Your task to perform on an android device: Turn on the flashlight Image 0: 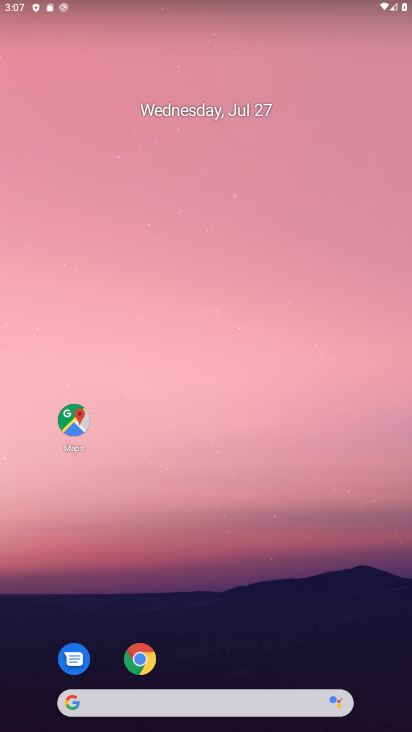
Step 0: drag from (170, 2) to (216, 437)
Your task to perform on an android device: Turn on the flashlight Image 1: 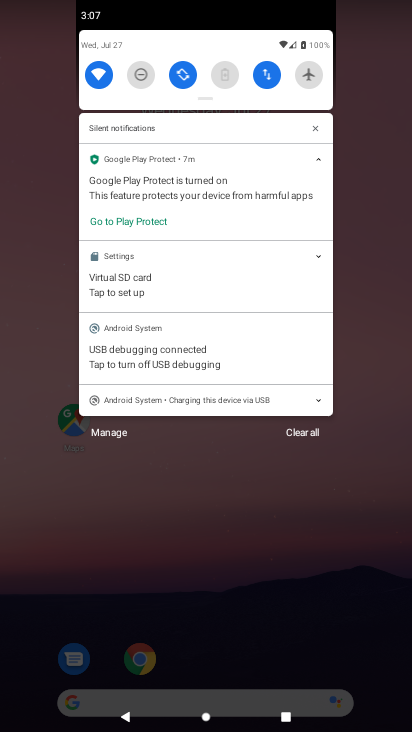
Step 1: task complete